Your task to perform on an android device: move a message to another label in the gmail app Image 0: 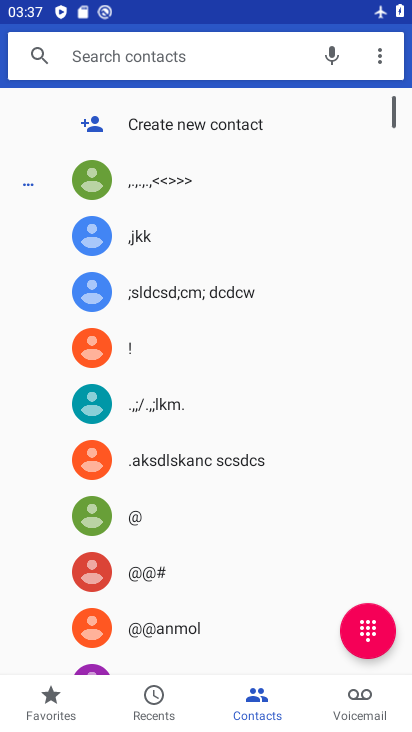
Step 0: press home button
Your task to perform on an android device: move a message to another label in the gmail app Image 1: 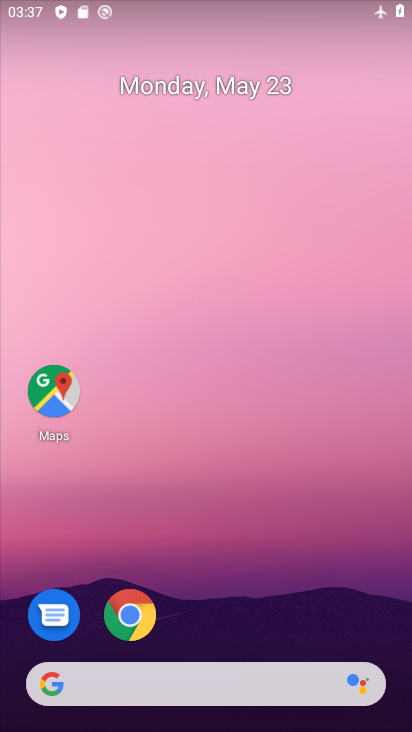
Step 1: press home button
Your task to perform on an android device: move a message to another label in the gmail app Image 2: 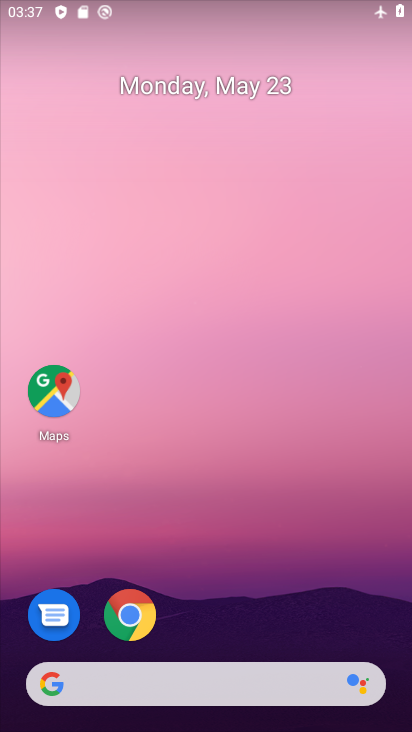
Step 2: drag from (195, 641) to (293, 186)
Your task to perform on an android device: move a message to another label in the gmail app Image 3: 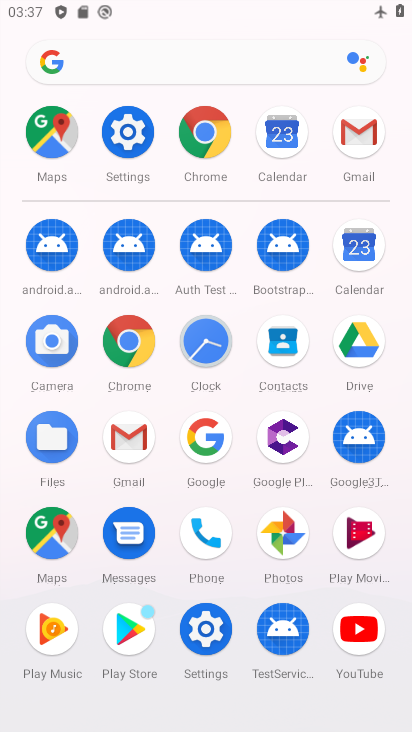
Step 3: click (355, 135)
Your task to perform on an android device: move a message to another label in the gmail app Image 4: 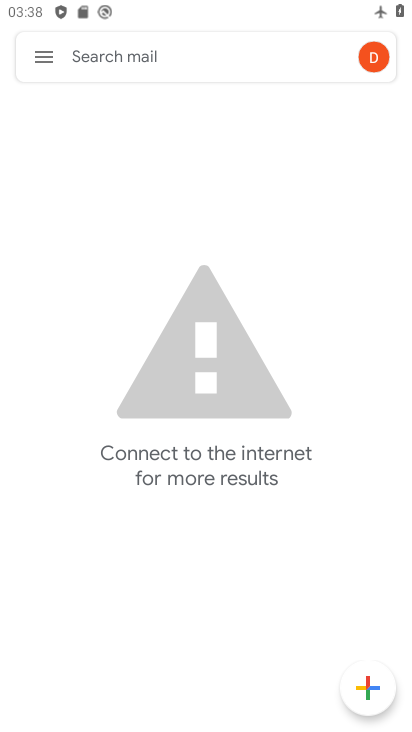
Step 4: task complete